Your task to perform on an android device: Open Youtube and go to the subscriptions tab Image 0: 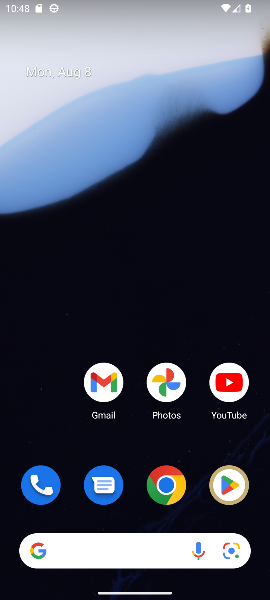
Step 0: drag from (126, 512) to (135, 115)
Your task to perform on an android device: Open Youtube and go to the subscriptions tab Image 1: 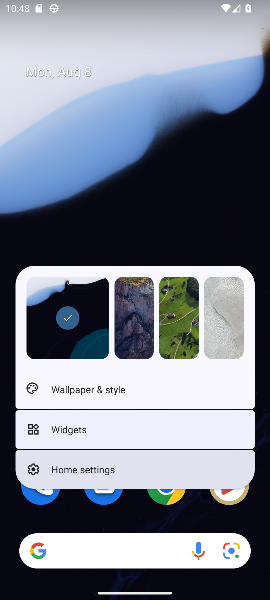
Step 1: click (168, 187)
Your task to perform on an android device: Open Youtube and go to the subscriptions tab Image 2: 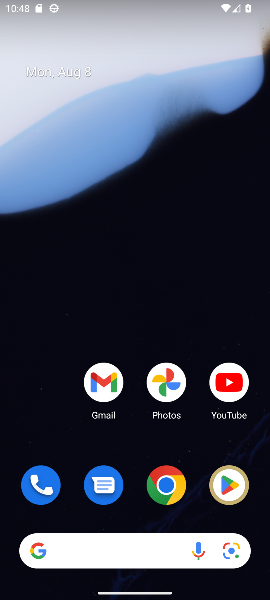
Step 2: drag from (195, 485) to (190, 155)
Your task to perform on an android device: Open Youtube and go to the subscriptions tab Image 3: 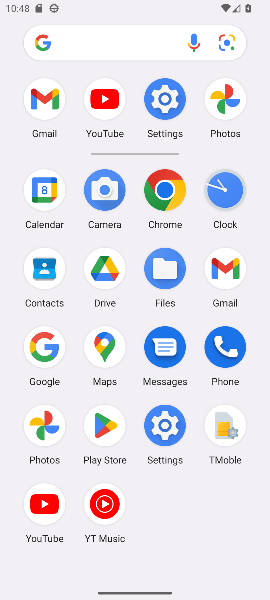
Step 3: click (40, 494)
Your task to perform on an android device: Open Youtube and go to the subscriptions tab Image 4: 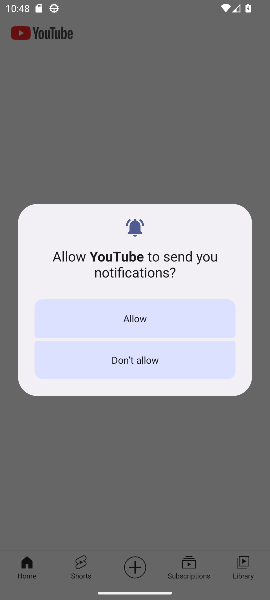
Step 4: click (120, 314)
Your task to perform on an android device: Open Youtube and go to the subscriptions tab Image 5: 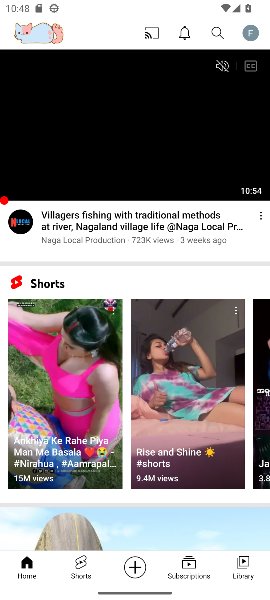
Step 5: click (189, 556)
Your task to perform on an android device: Open Youtube and go to the subscriptions tab Image 6: 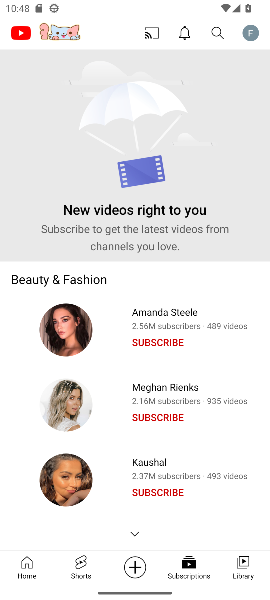
Step 6: task complete